Your task to perform on an android device: Go to wifi settings Image 0: 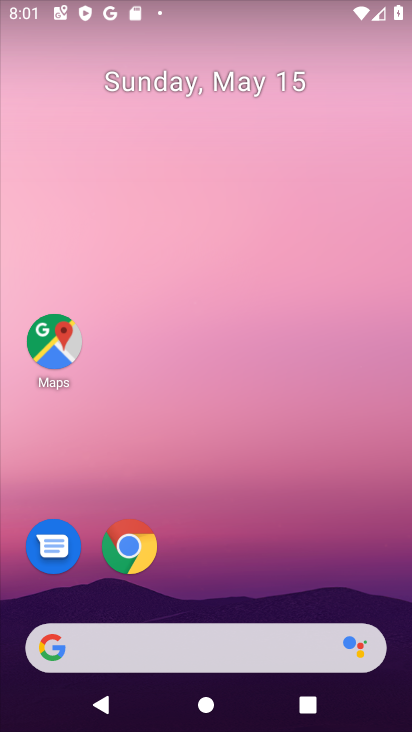
Step 0: drag from (209, 447) to (213, 8)
Your task to perform on an android device: Go to wifi settings Image 1: 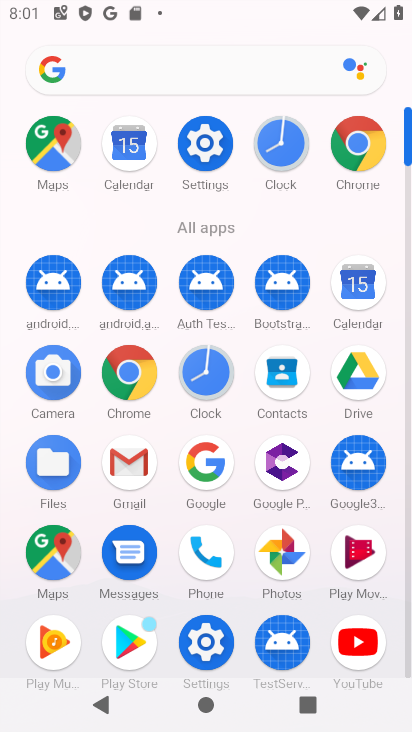
Step 1: click (196, 139)
Your task to perform on an android device: Go to wifi settings Image 2: 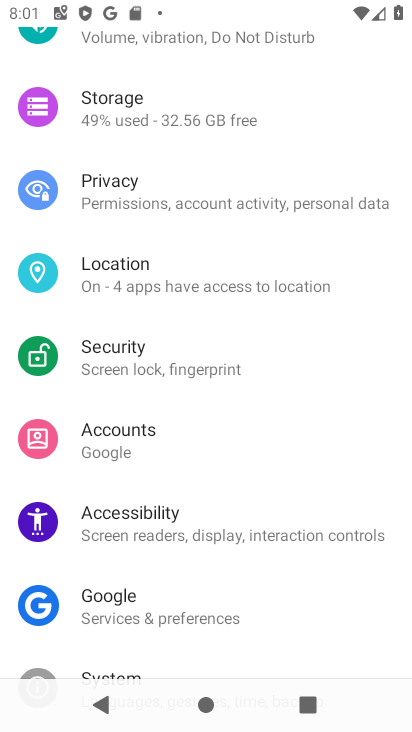
Step 2: drag from (186, 167) to (189, 508)
Your task to perform on an android device: Go to wifi settings Image 3: 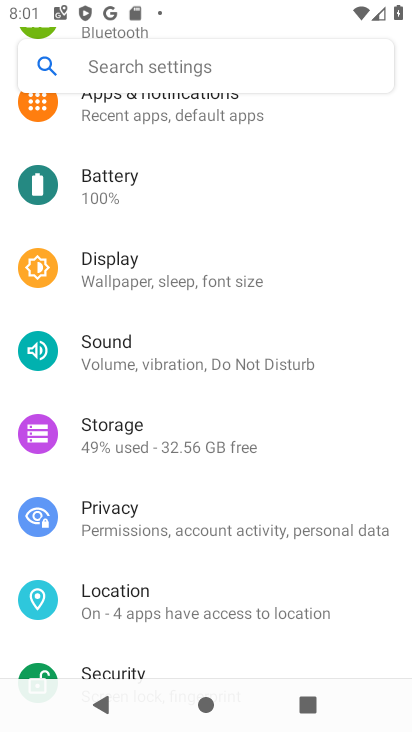
Step 3: drag from (177, 180) to (182, 497)
Your task to perform on an android device: Go to wifi settings Image 4: 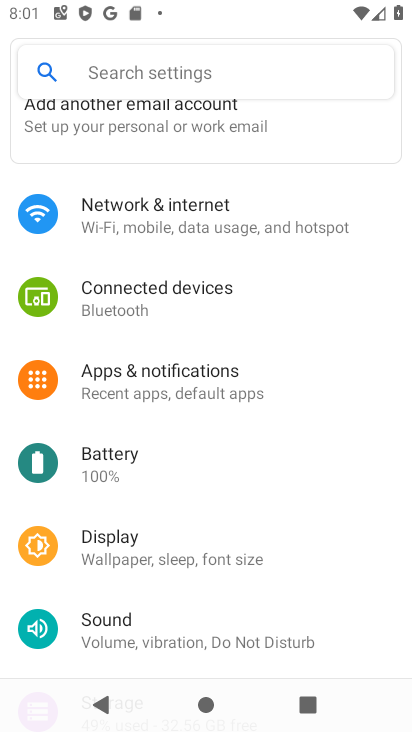
Step 4: click (198, 223)
Your task to perform on an android device: Go to wifi settings Image 5: 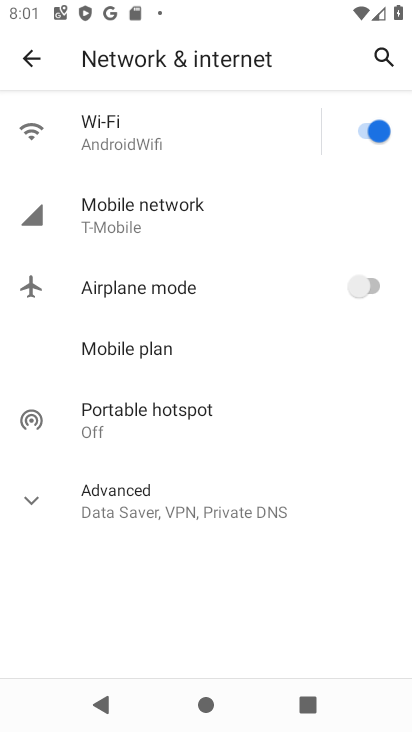
Step 5: click (144, 119)
Your task to perform on an android device: Go to wifi settings Image 6: 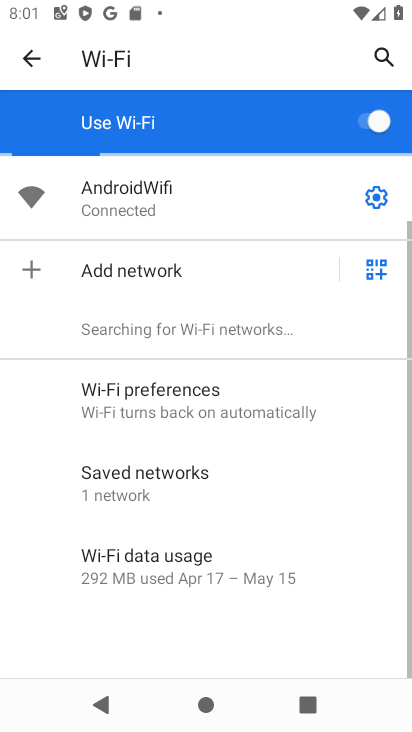
Step 6: task complete